Your task to perform on an android device: Open the Play Movies app and select the watchlist tab. Image 0: 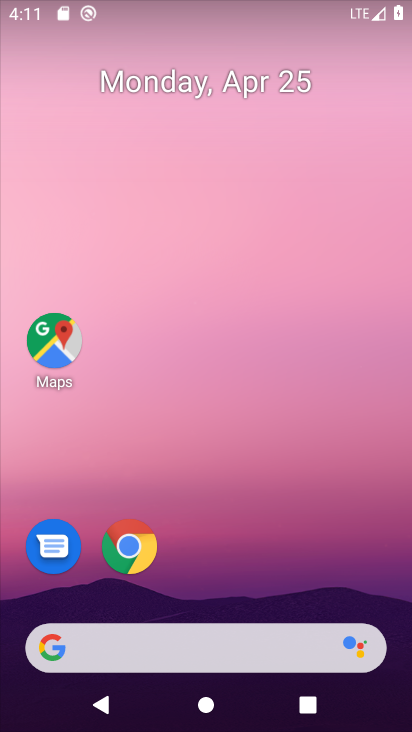
Step 0: drag from (255, 587) to (250, 56)
Your task to perform on an android device: Open the Play Movies app and select the watchlist tab. Image 1: 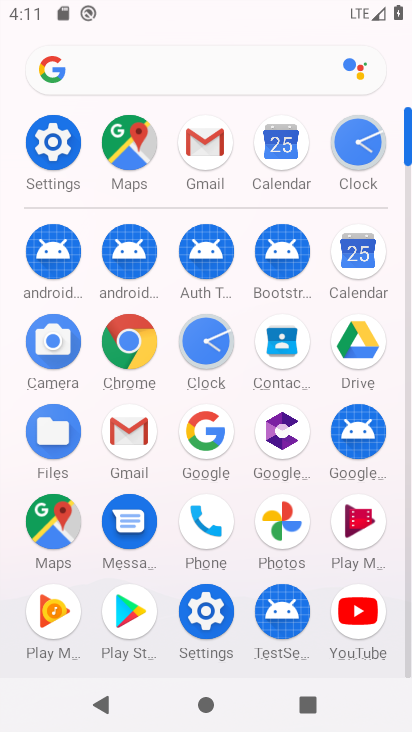
Step 1: click (350, 542)
Your task to perform on an android device: Open the Play Movies app and select the watchlist tab. Image 2: 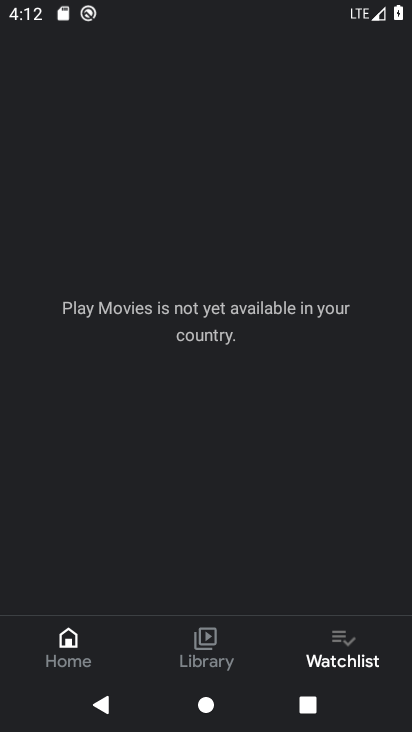
Step 2: click (347, 661)
Your task to perform on an android device: Open the Play Movies app and select the watchlist tab. Image 3: 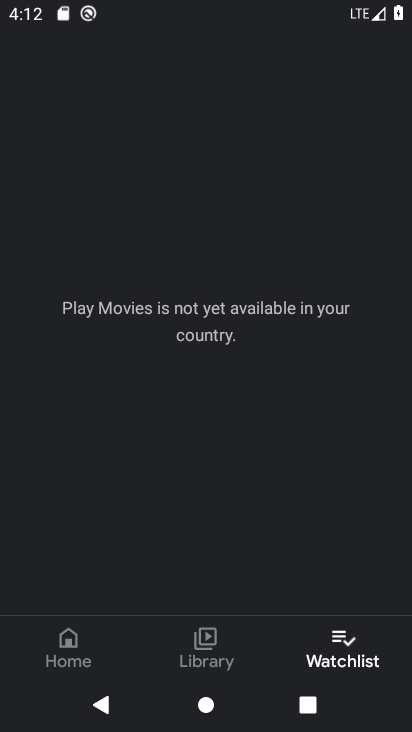
Step 3: task complete